Your task to perform on an android device: What's the weather going to be this weekend? Image 0: 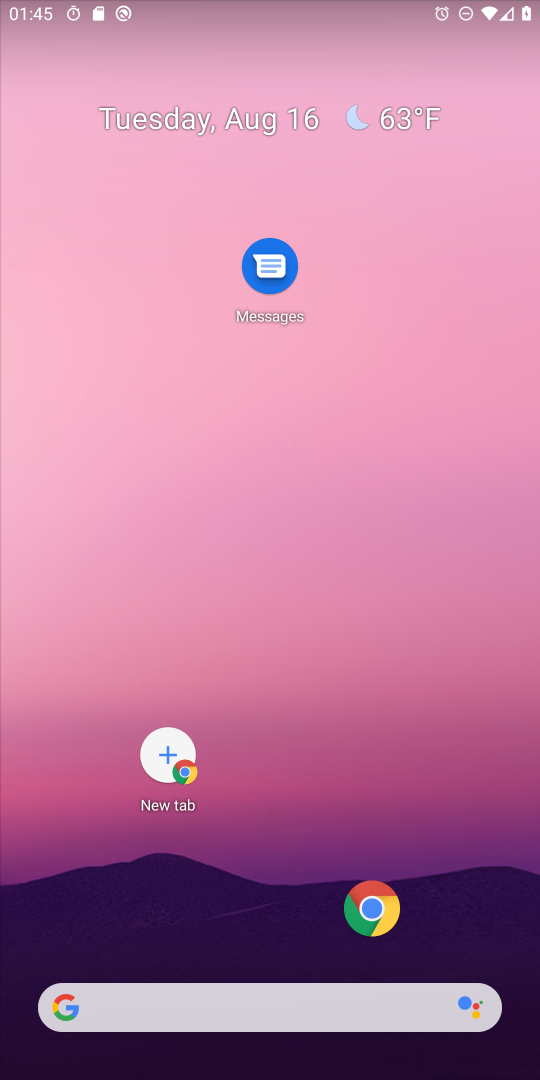
Step 0: click (399, 113)
Your task to perform on an android device: What's the weather going to be this weekend? Image 1: 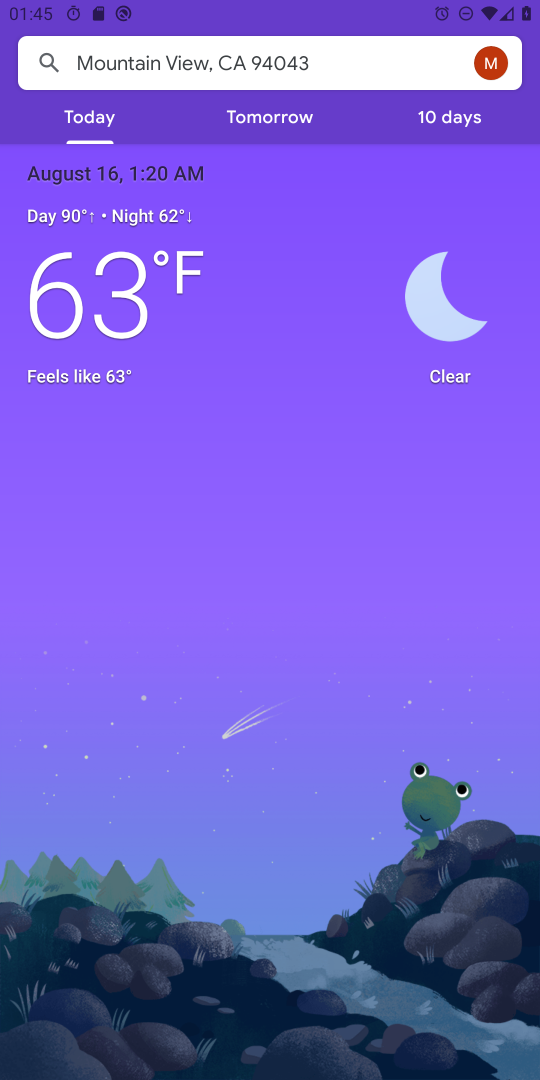
Step 1: click (399, 113)
Your task to perform on an android device: What's the weather going to be this weekend? Image 2: 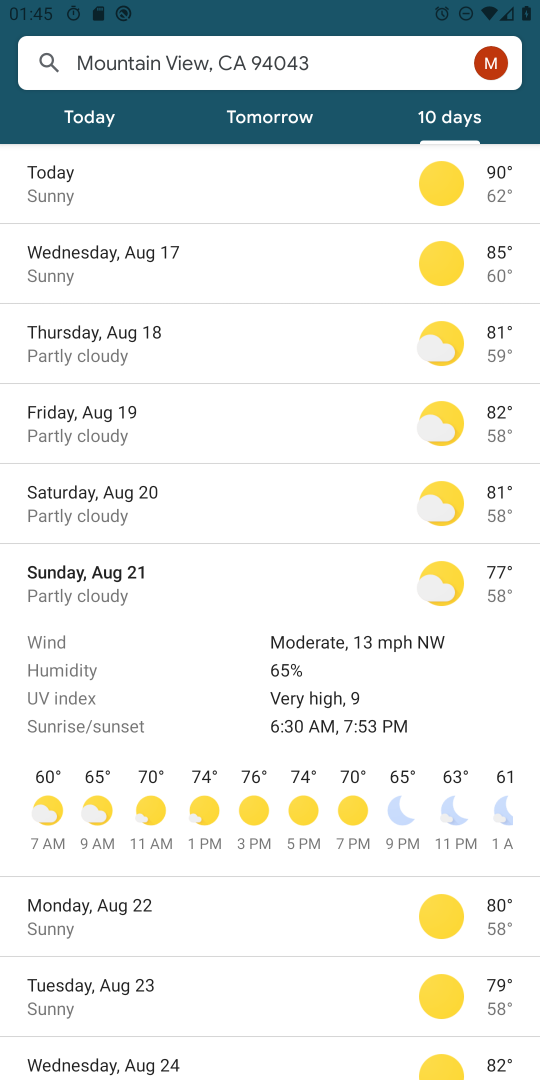
Step 2: click (209, 516)
Your task to perform on an android device: What's the weather going to be this weekend? Image 3: 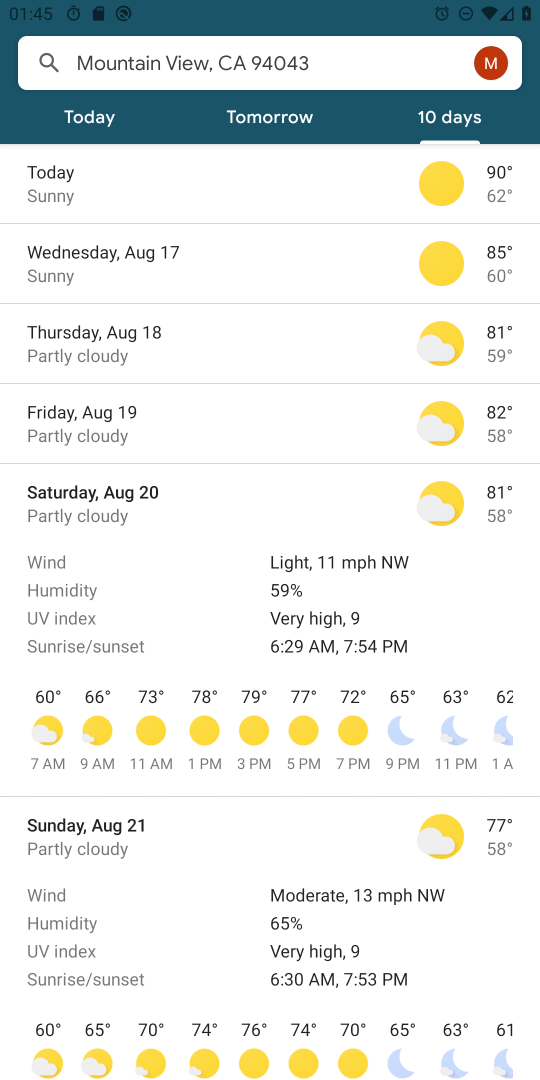
Step 3: task complete